Your task to perform on an android device: Open sound settings Image 0: 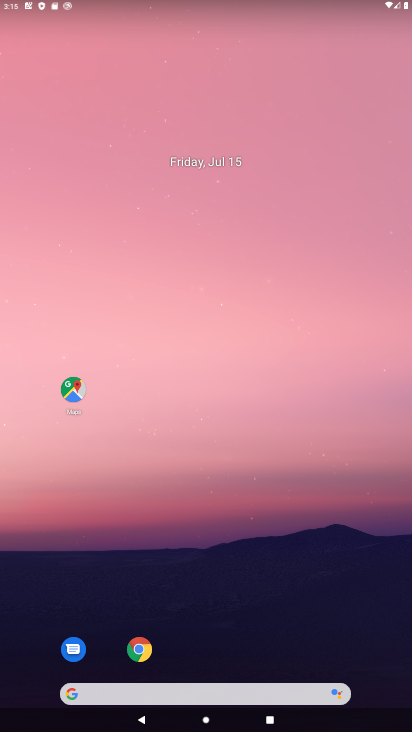
Step 0: drag from (298, 600) to (227, 110)
Your task to perform on an android device: Open sound settings Image 1: 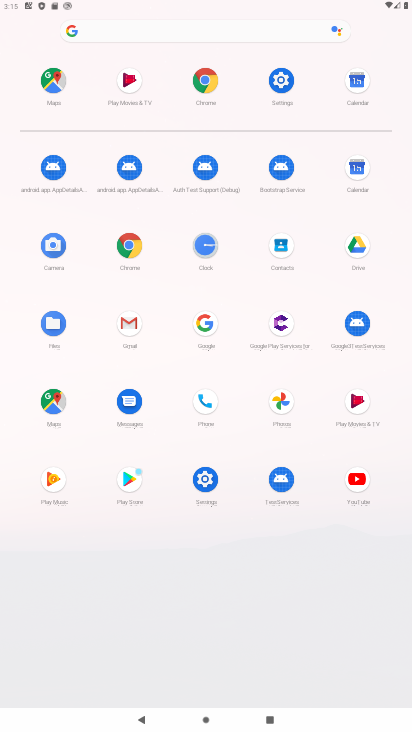
Step 1: click (280, 82)
Your task to perform on an android device: Open sound settings Image 2: 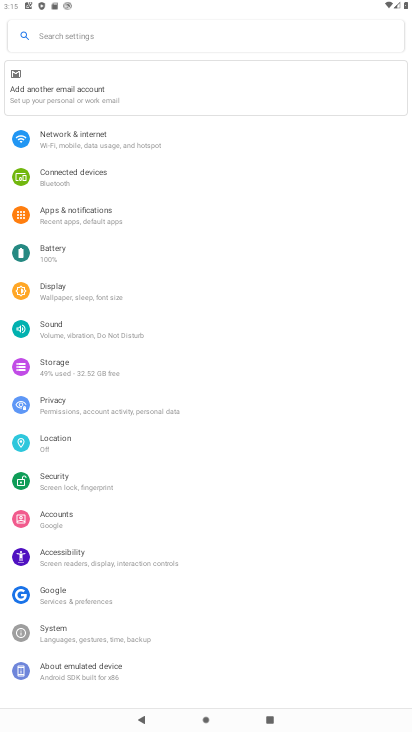
Step 2: click (95, 332)
Your task to perform on an android device: Open sound settings Image 3: 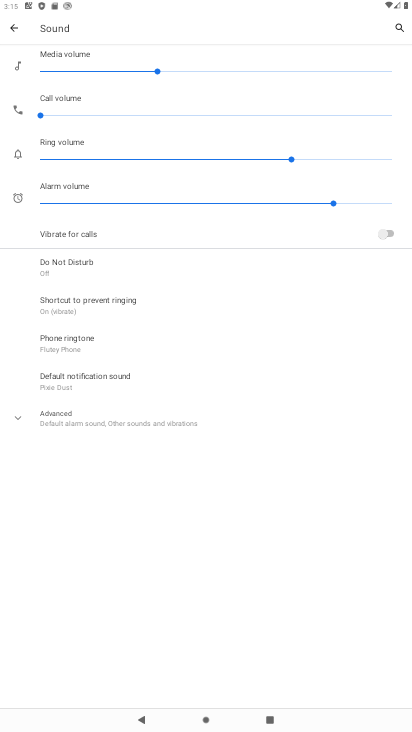
Step 3: task complete